Your task to perform on an android device: change notification settings in the gmail app Image 0: 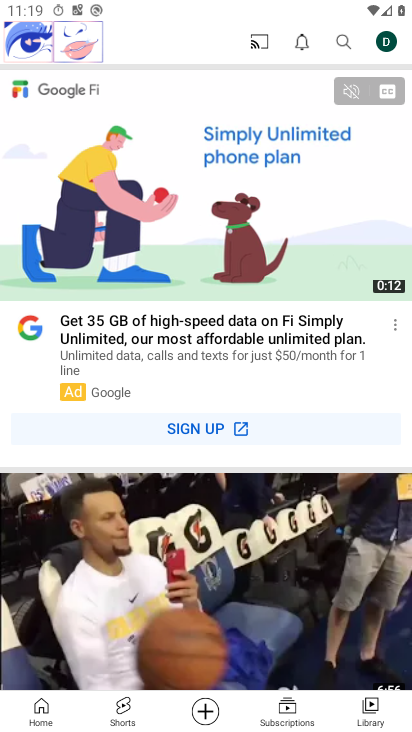
Step 0: press home button
Your task to perform on an android device: change notification settings in the gmail app Image 1: 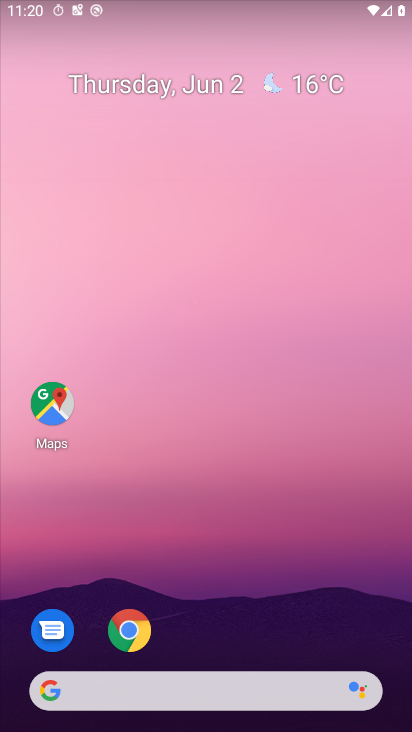
Step 1: drag from (235, 643) to (238, 189)
Your task to perform on an android device: change notification settings in the gmail app Image 2: 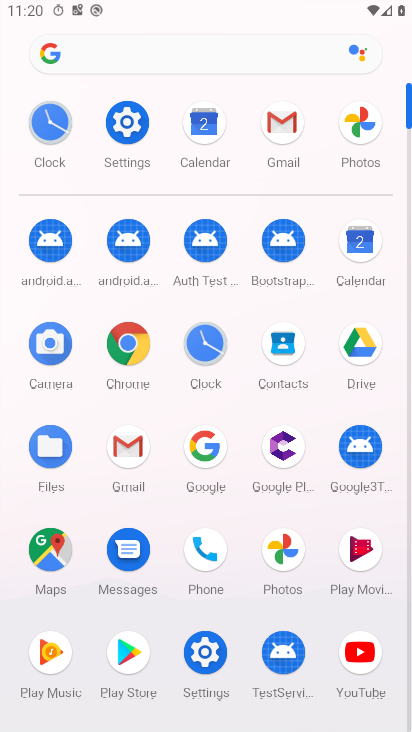
Step 2: click (142, 452)
Your task to perform on an android device: change notification settings in the gmail app Image 3: 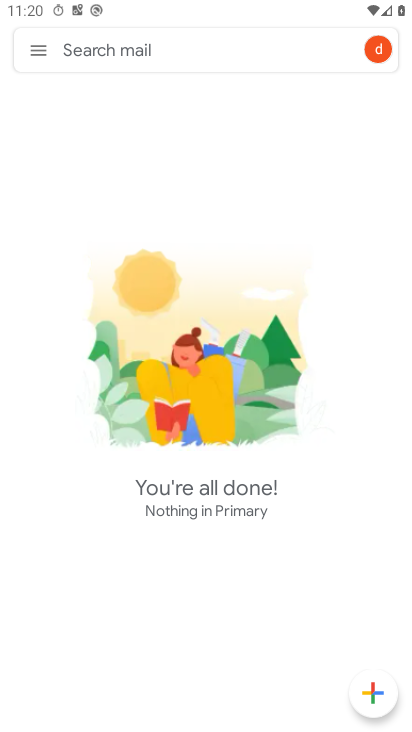
Step 3: click (28, 47)
Your task to perform on an android device: change notification settings in the gmail app Image 4: 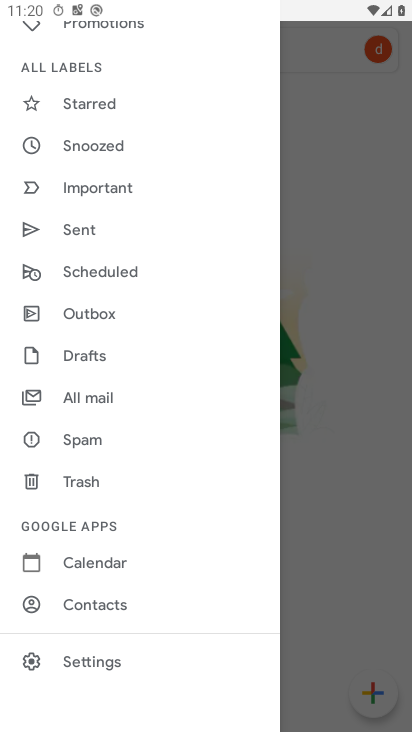
Step 4: click (107, 655)
Your task to perform on an android device: change notification settings in the gmail app Image 5: 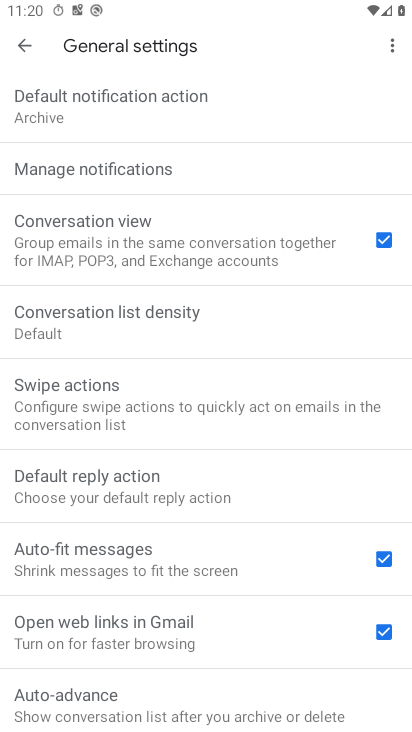
Step 5: click (157, 174)
Your task to perform on an android device: change notification settings in the gmail app Image 6: 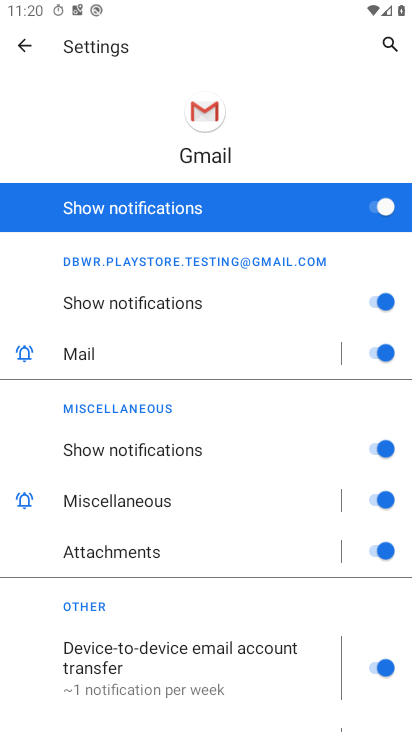
Step 6: click (367, 199)
Your task to perform on an android device: change notification settings in the gmail app Image 7: 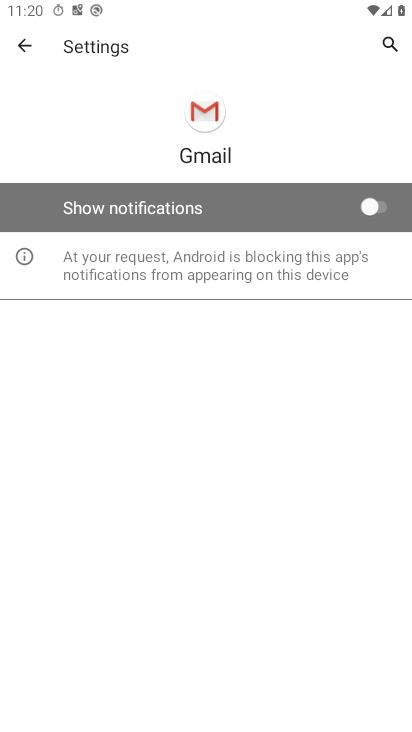
Step 7: task complete